Your task to perform on an android device: star an email in the gmail app Image 0: 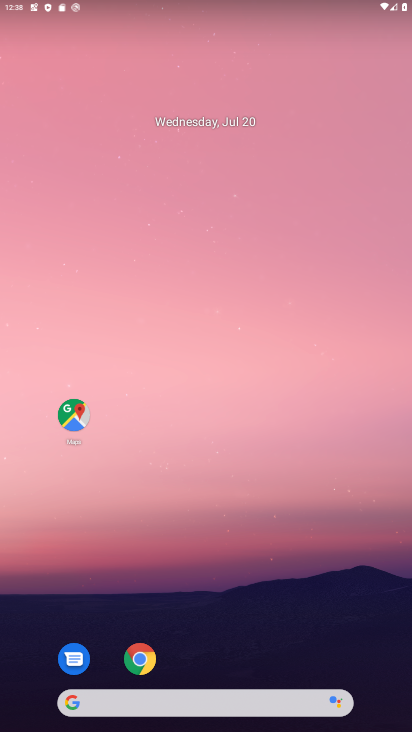
Step 0: drag from (242, 538) to (234, 164)
Your task to perform on an android device: star an email in the gmail app Image 1: 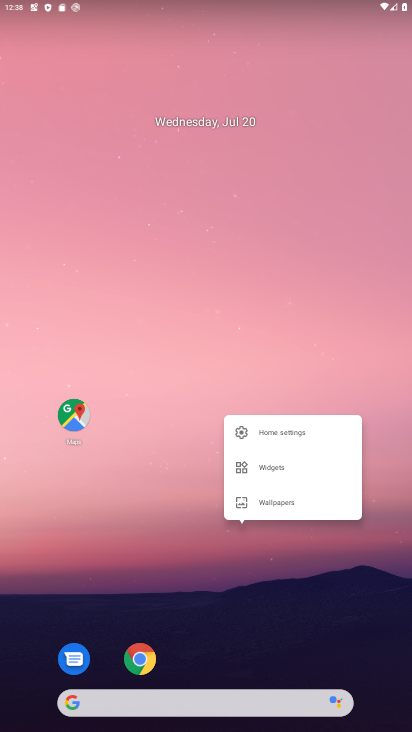
Step 1: click (189, 313)
Your task to perform on an android device: star an email in the gmail app Image 2: 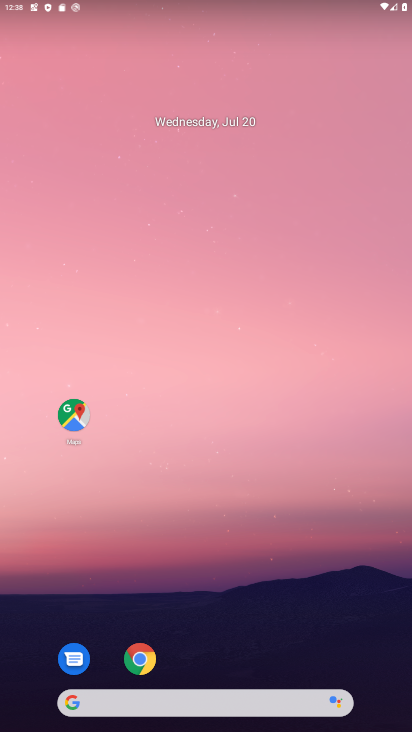
Step 2: drag from (238, 540) to (222, 179)
Your task to perform on an android device: star an email in the gmail app Image 3: 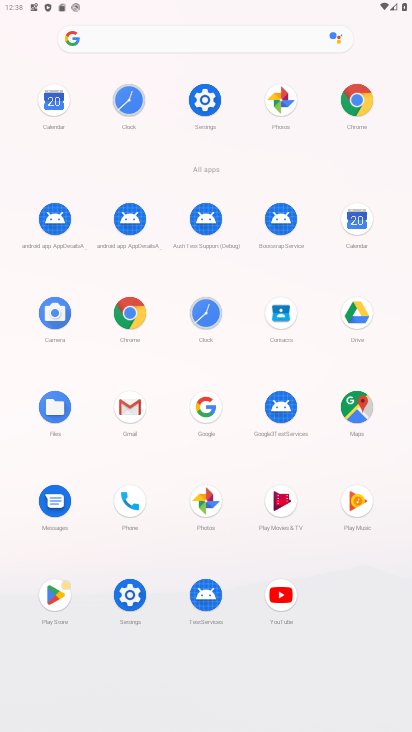
Step 3: click (129, 409)
Your task to perform on an android device: star an email in the gmail app Image 4: 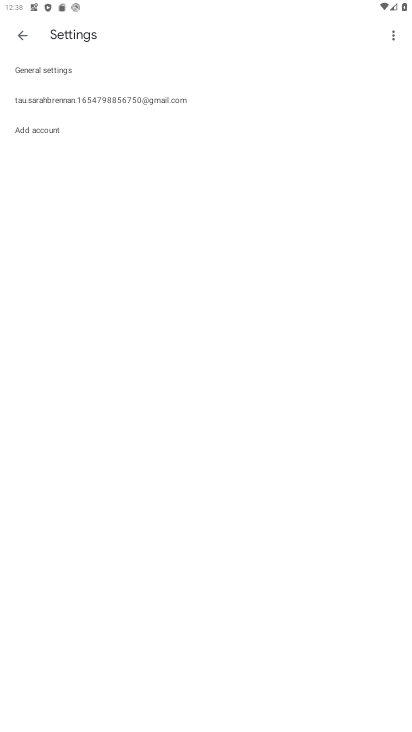
Step 4: click (21, 36)
Your task to perform on an android device: star an email in the gmail app Image 5: 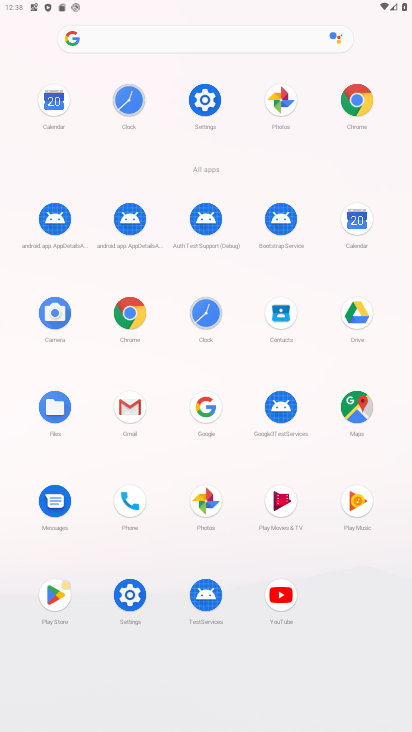
Step 5: click (125, 404)
Your task to perform on an android device: star an email in the gmail app Image 6: 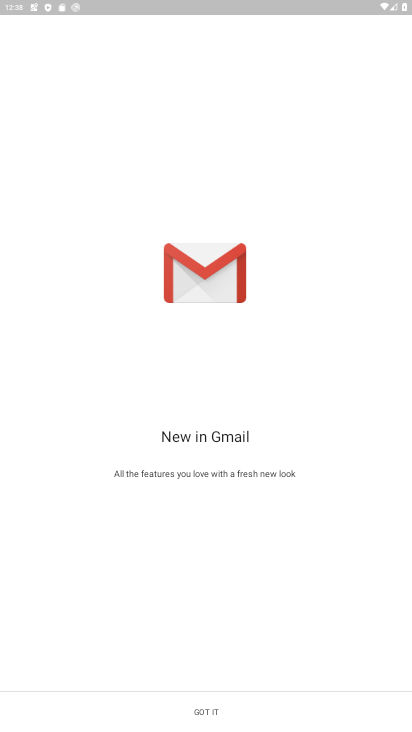
Step 6: click (200, 715)
Your task to perform on an android device: star an email in the gmail app Image 7: 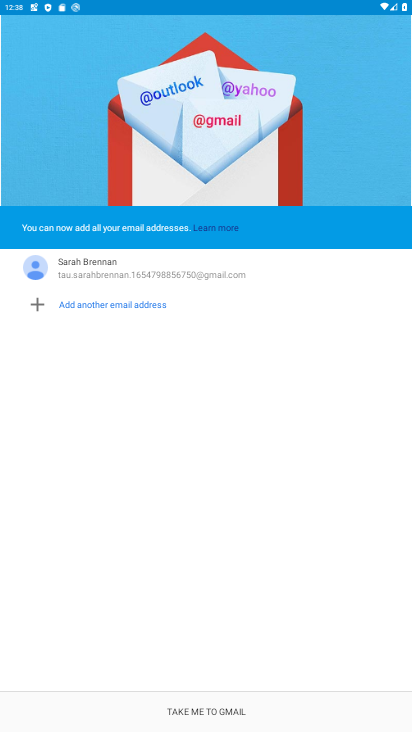
Step 7: click (203, 702)
Your task to perform on an android device: star an email in the gmail app Image 8: 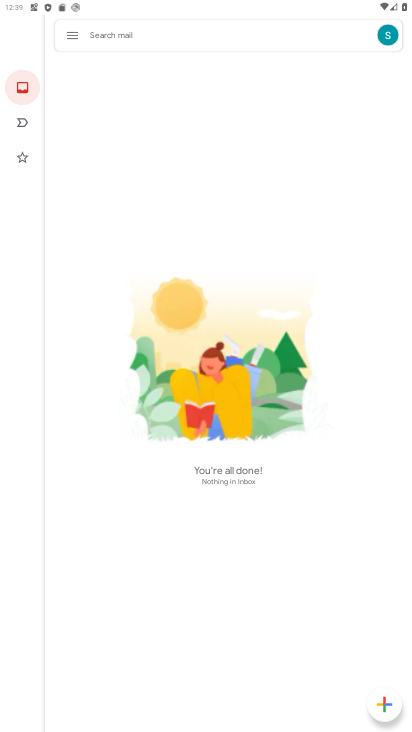
Step 8: click (74, 32)
Your task to perform on an android device: star an email in the gmail app Image 9: 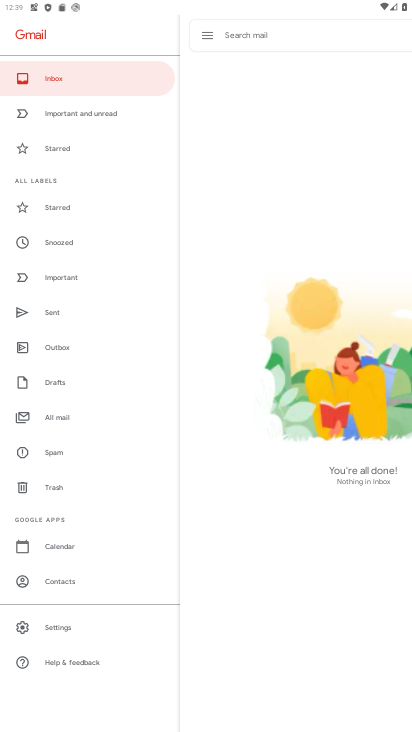
Step 9: click (63, 208)
Your task to perform on an android device: star an email in the gmail app Image 10: 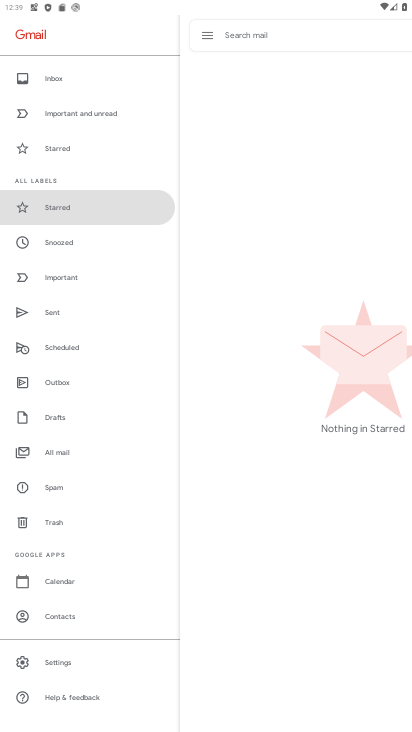
Step 10: task complete